Your task to perform on an android device: Do I have any events tomorrow? Image 0: 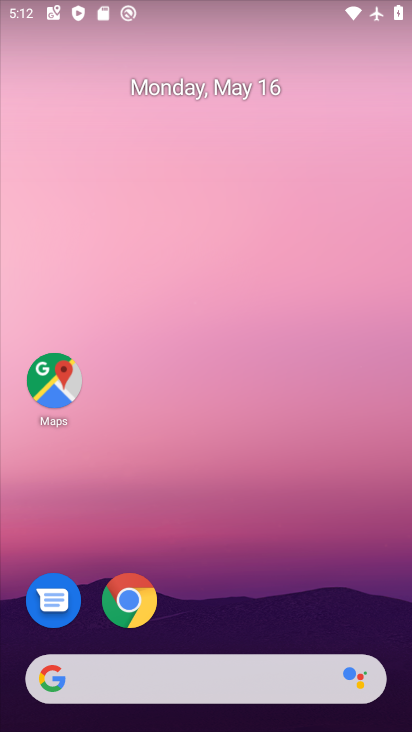
Step 0: drag from (170, 643) to (102, 48)
Your task to perform on an android device: Do I have any events tomorrow? Image 1: 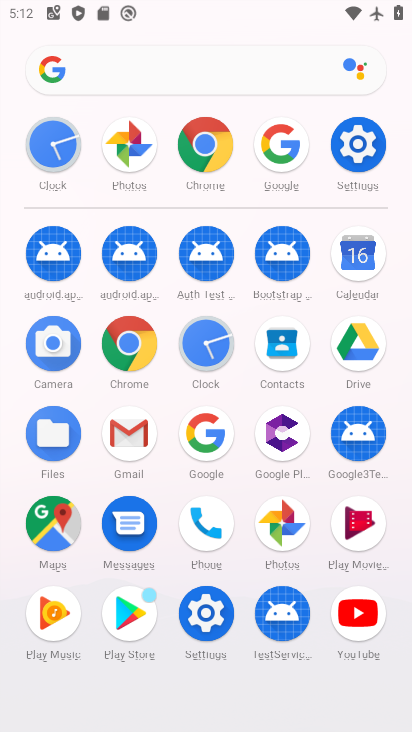
Step 1: click (361, 247)
Your task to perform on an android device: Do I have any events tomorrow? Image 2: 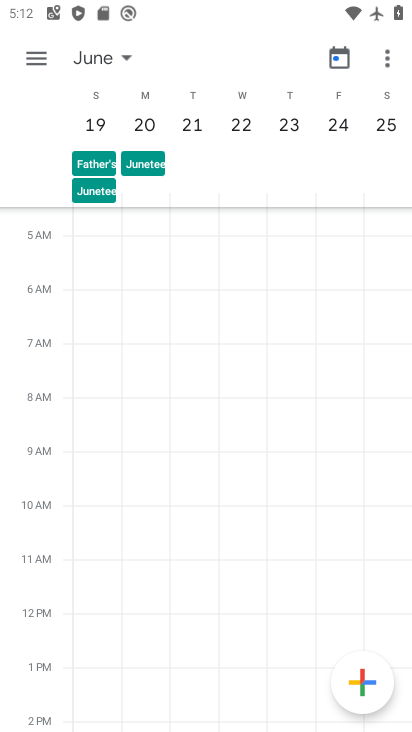
Step 2: click (341, 58)
Your task to perform on an android device: Do I have any events tomorrow? Image 3: 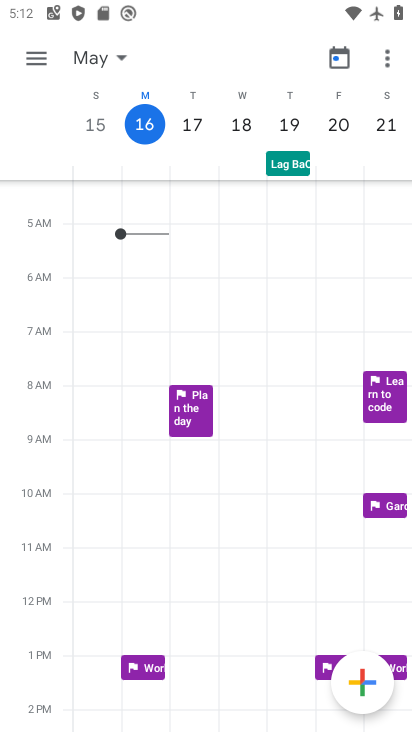
Step 3: click (180, 116)
Your task to perform on an android device: Do I have any events tomorrow? Image 4: 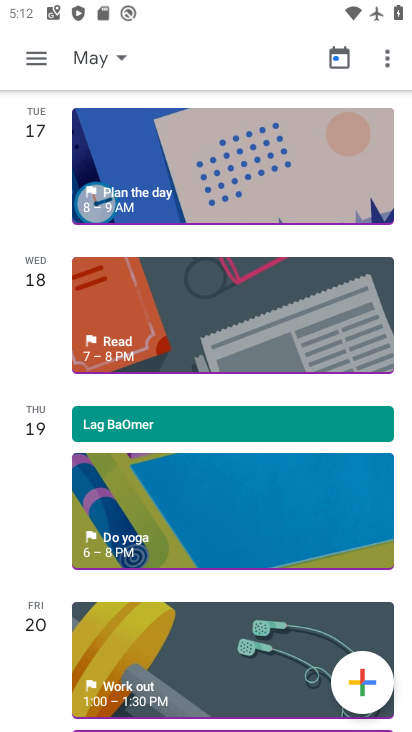
Step 4: task complete